Your task to perform on an android device: Show me recent news Image 0: 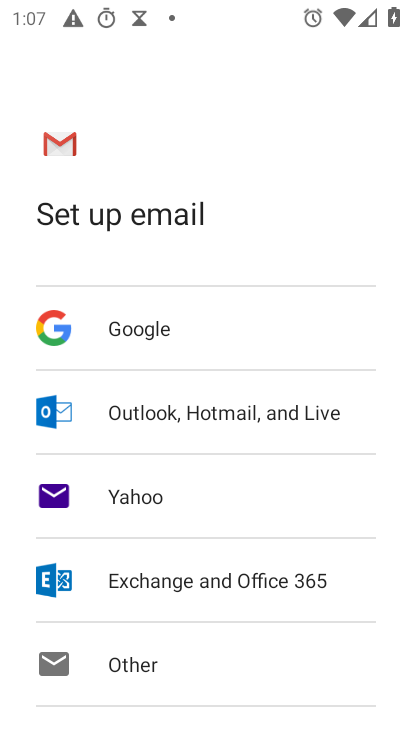
Step 0: press home button
Your task to perform on an android device: Show me recent news Image 1: 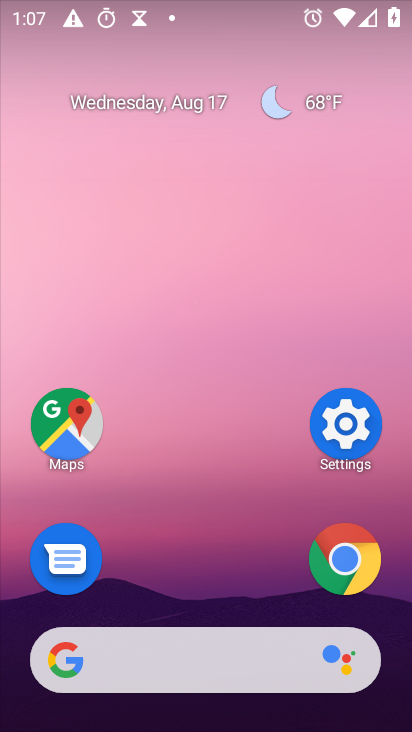
Step 1: click (156, 651)
Your task to perform on an android device: Show me recent news Image 2: 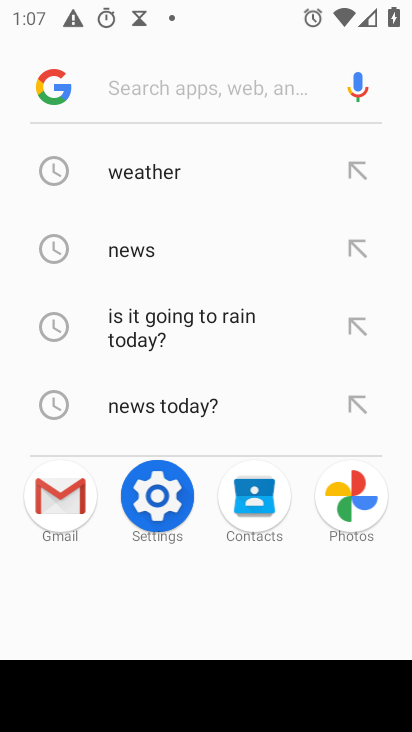
Step 2: click (123, 250)
Your task to perform on an android device: Show me recent news Image 3: 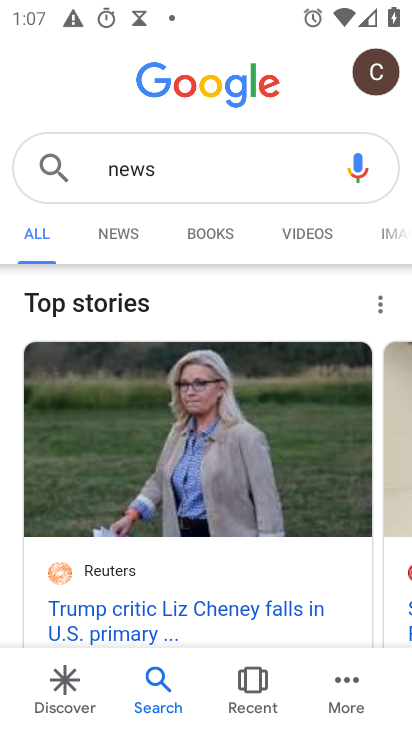
Step 3: click (122, 233)
Your task to perform on an android device: Show me recent news Image 4: 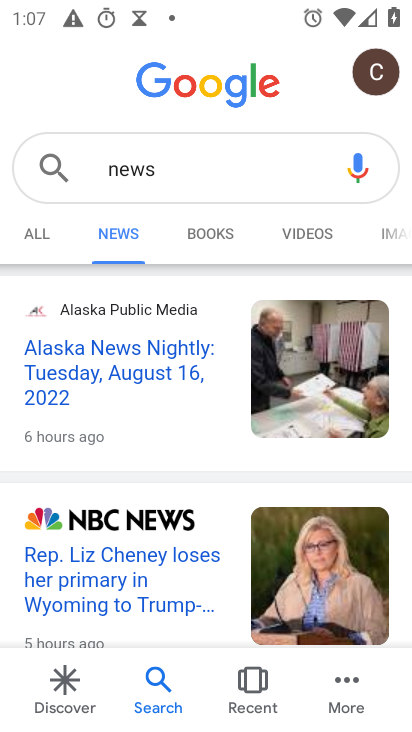
Step 4: task complete